Your task to perform on an android device: Search for Italian restaurants on Maps Image 0: 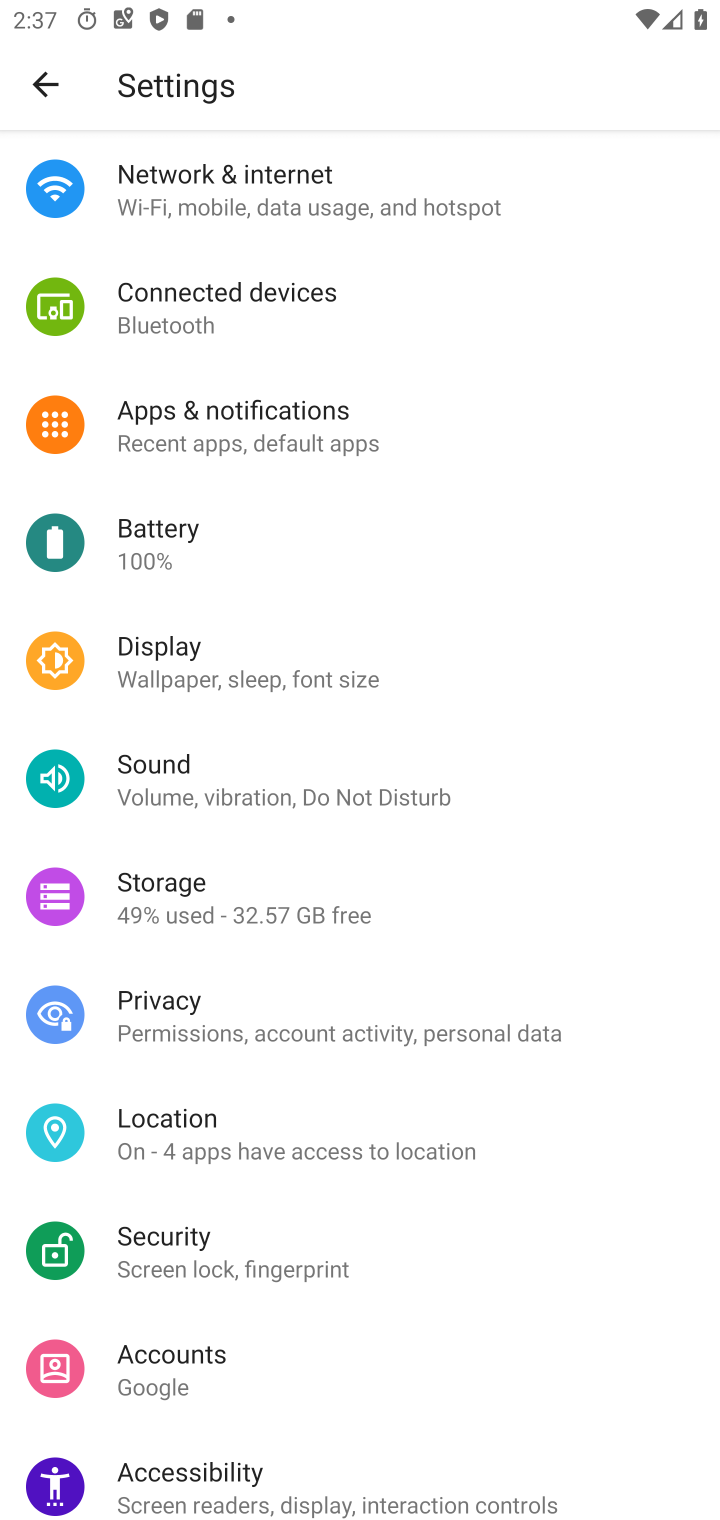
Step 0: press home button
Your task to perform on an android device: Search for Italian restaurants on Maps Image 1: 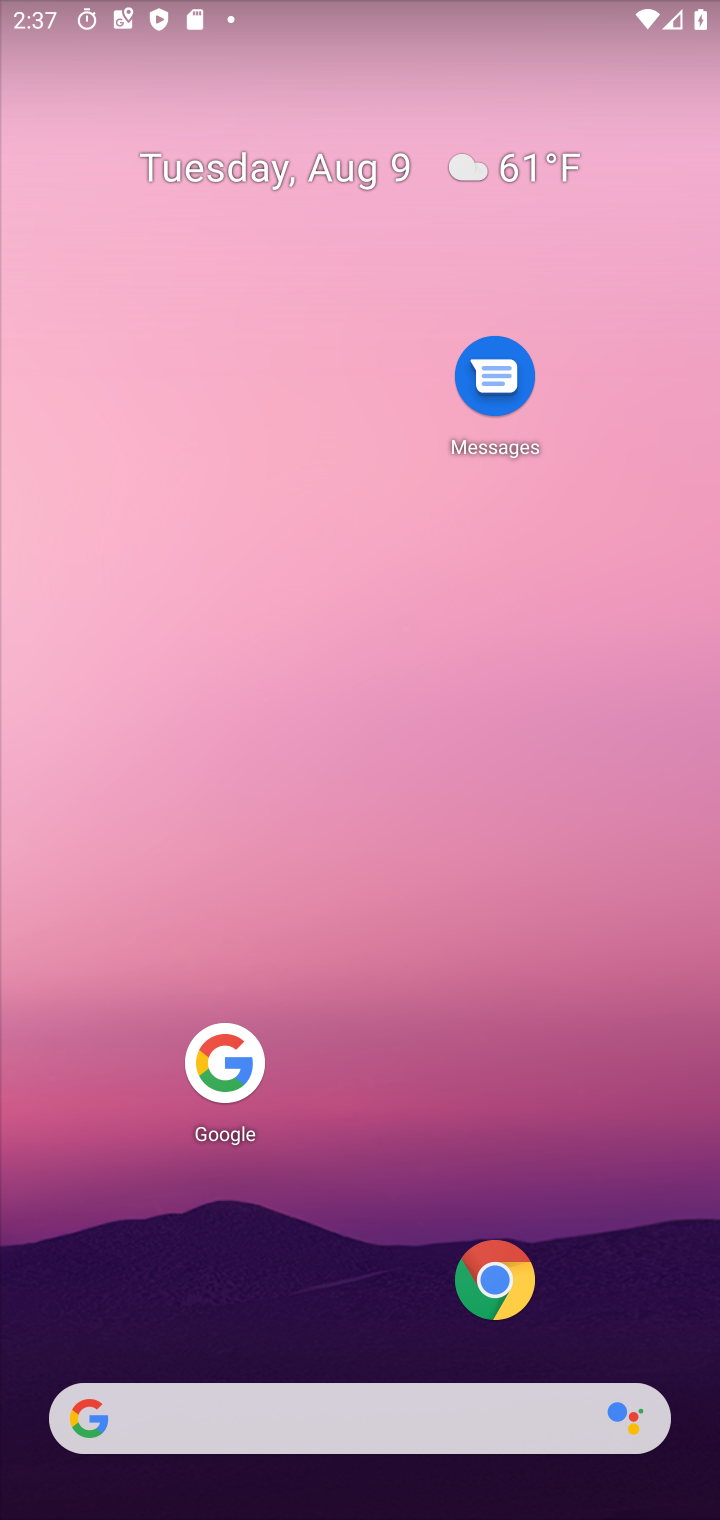
Step 1: drag from (325, 1210) to (698, 43)
Your task to perform on an android device: Search for Italian restaurants on Maps Image 2: 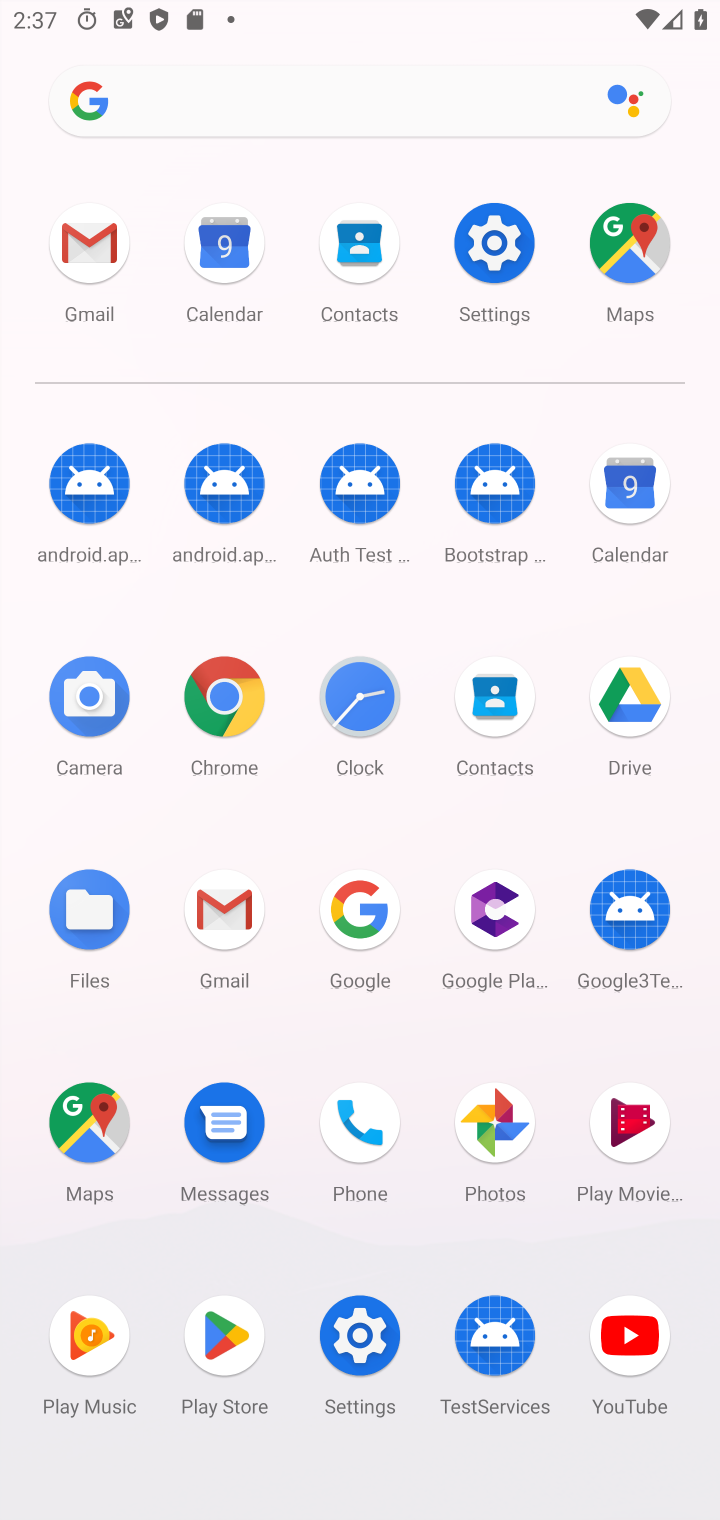
Step 2: click (615, 258)
Your task to perform on an android device: Search for Italian restaurants on Maps Image 3: 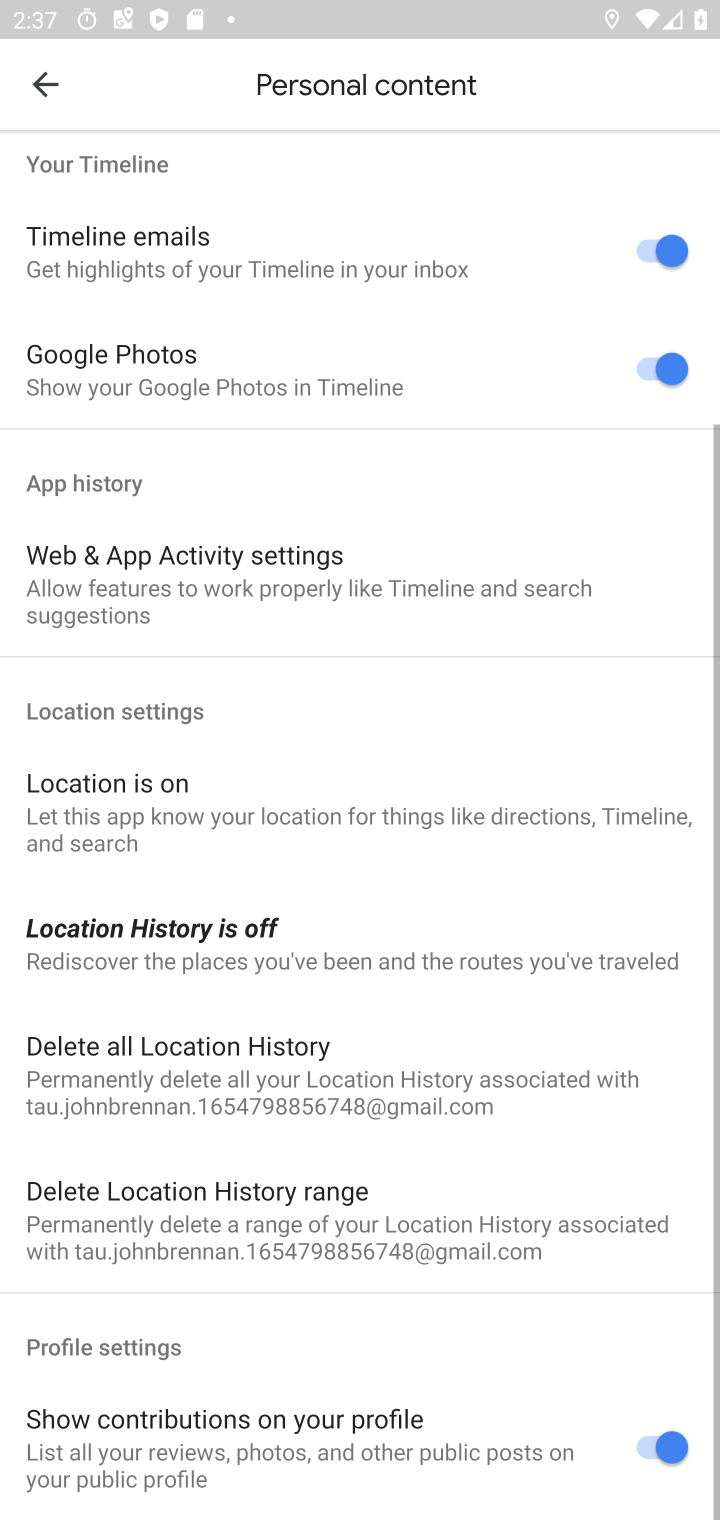
Step 3: click (58, 85)
Your task to perform on an android device: Search for Italian restaurants on Maps Image 4: 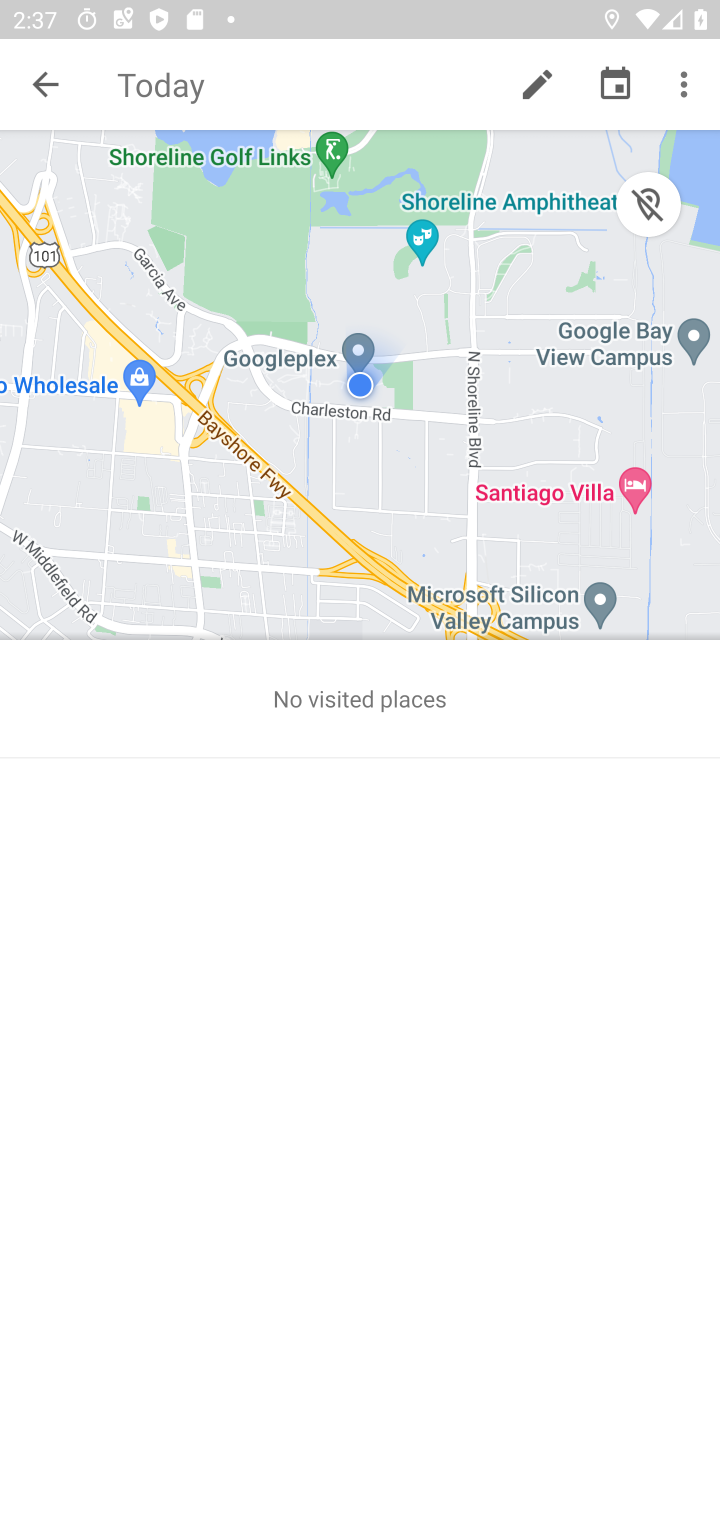
Step 4: click (58, 85)
Your task to perform on an android device: Search for Italian restaurants on Maps Image 5: 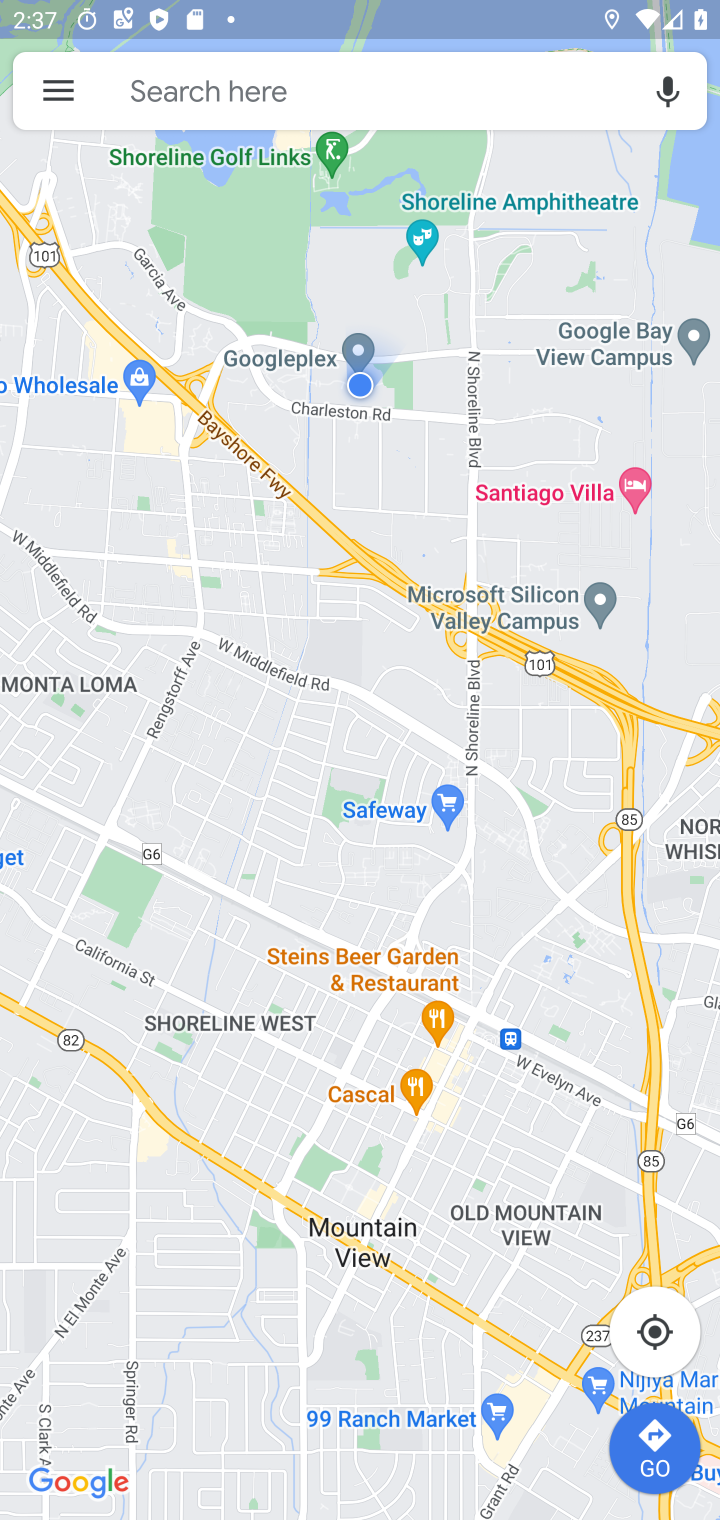
Step 5: click (156, 95)
Your task to perform on an android device: Search for Italian restaurants on Maps Image 6: 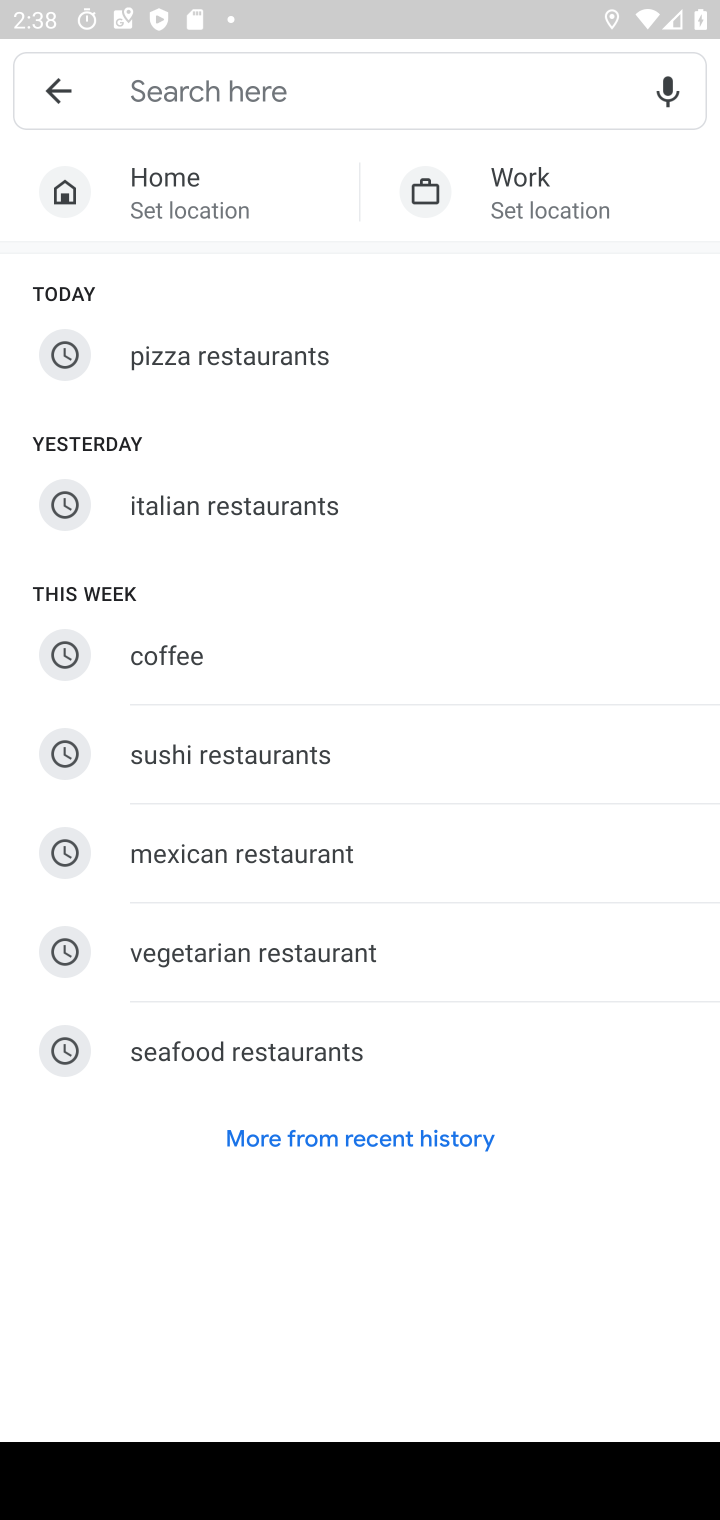
Step 6: click (302, 488)
Your task to perform on an android device: Search for Italian restaurants on Maps Image 7: 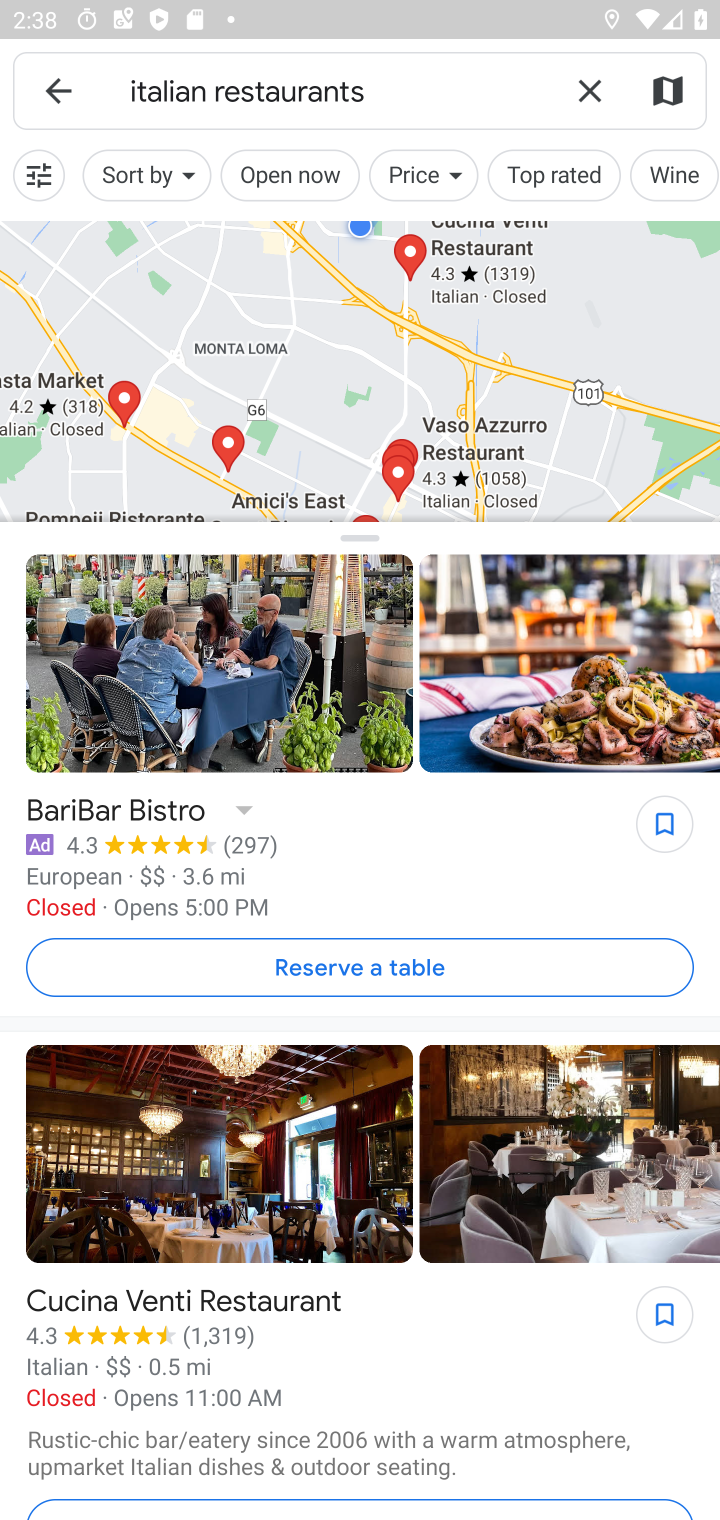
Step 7: task complete